Your task to perform on an android device: What is the news today? Image 0: 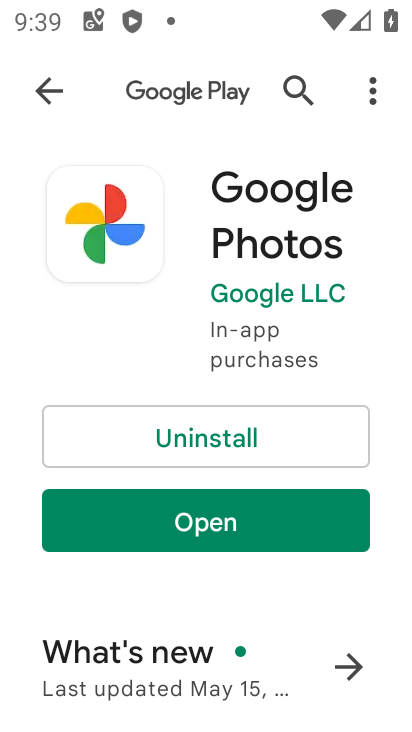
Step 0: press home button
Your task to perform on an android device: What is the news today? Image 1: 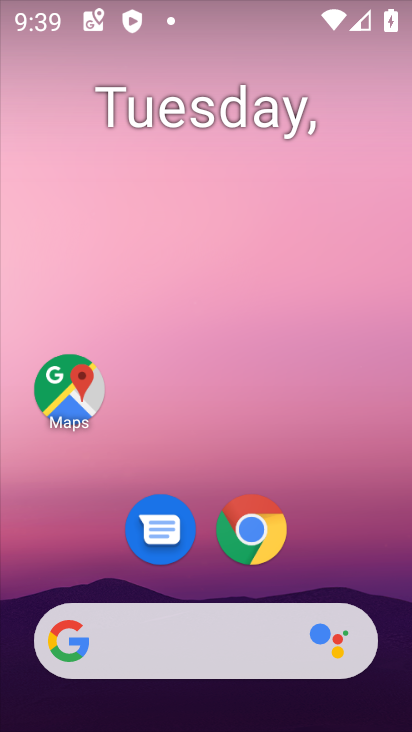
Step 1: drag from (242, 684) to (394, 218)
Your task to perform on an android device: What is the news today? Image 2: 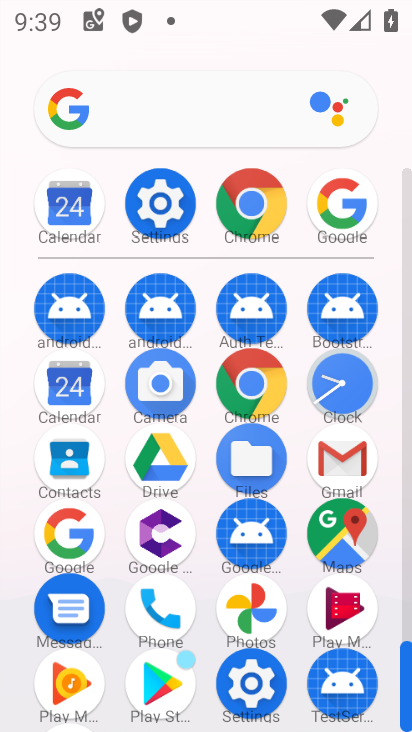
Step 2: click (80, 538)
Your task to perform on an android device: What is the news today? Image 3: 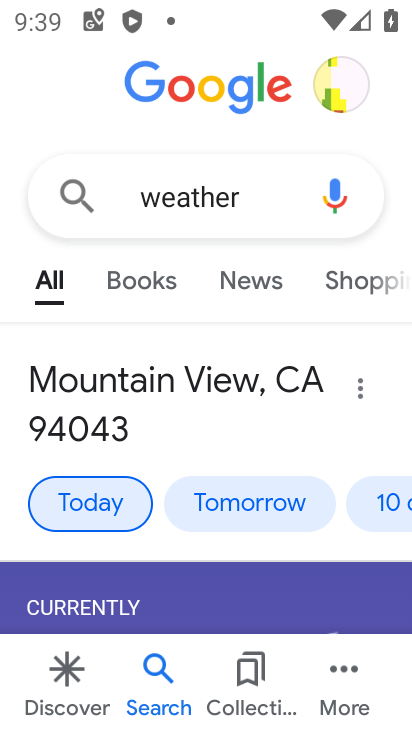
Step 3: click (254, 217)
Your task to perform on an android device: What is the news today? Image 4: 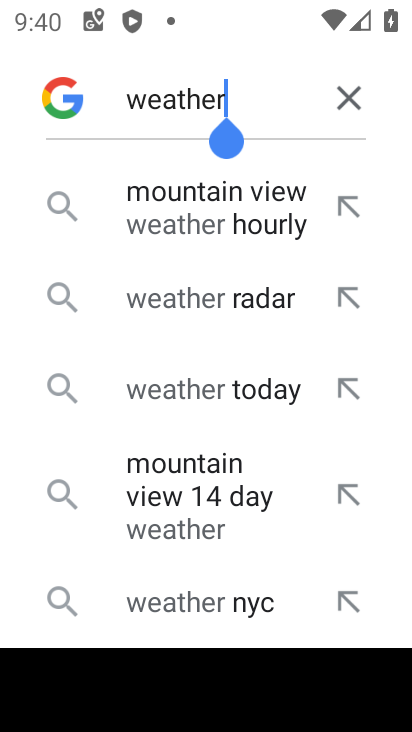
Step 4: click (353, 97)
Your task to perform on an android device: What is the news today? Image 5: 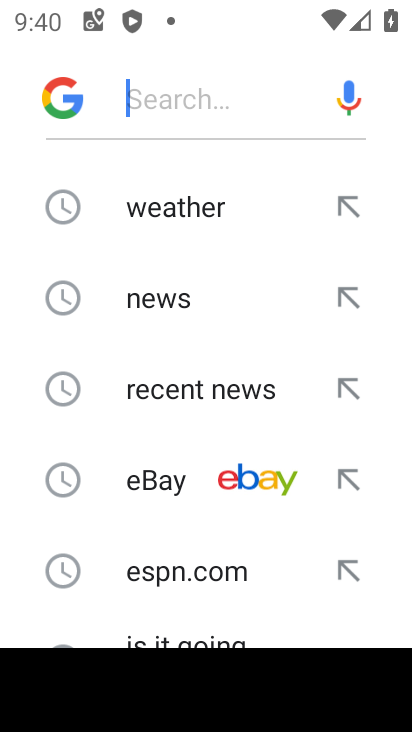
Step 5: click (240, 292)
Your task to perform on an android device: What is the news today? Image 6: 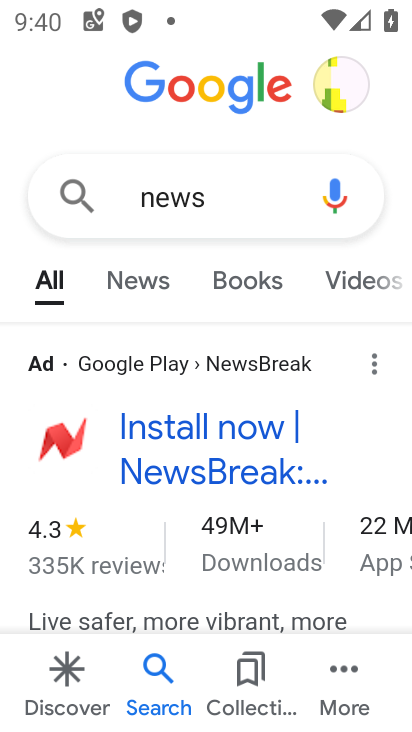
Step 6: click (168, 289)
Your task to perform on an android device: What is the news today? Image 7: 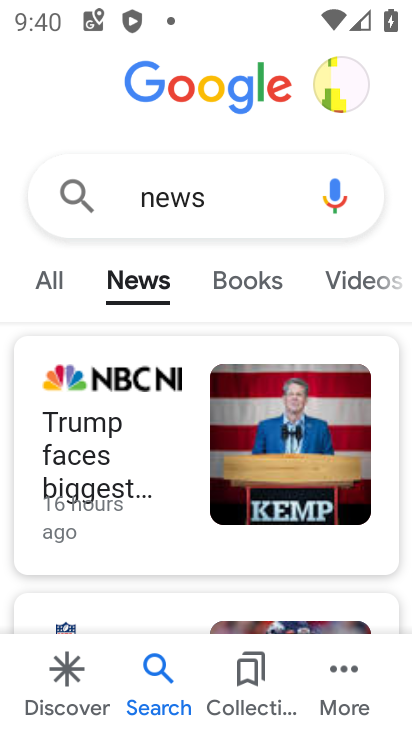
Step 7: task complete